Your task to perform on an android device: What's on my calendar tomorrow? Image 0: 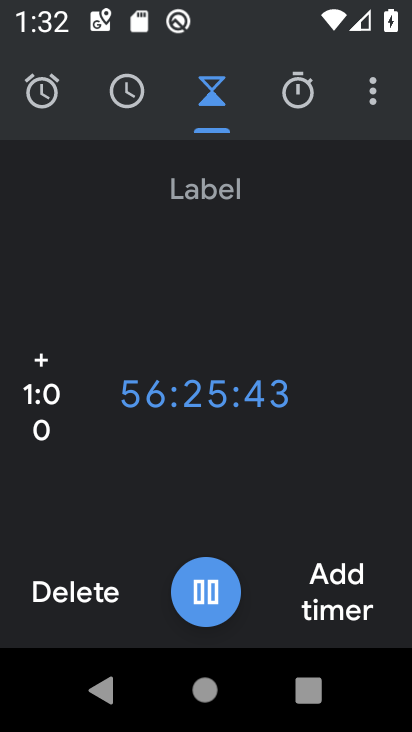
Step 0: press home button
Your task to perform on an android device: What's on my calendar tomorrow? Image 1: 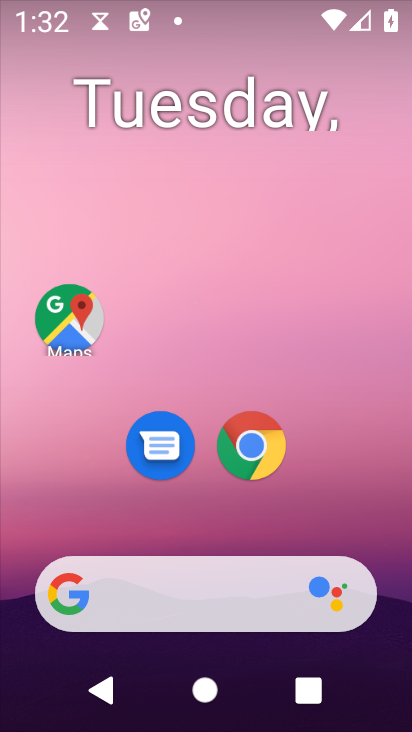
Step 1: drag from (192, 615) to (255, 50)
Your task to perform on an android device: What's on my calendar tomorrow? Image 2: 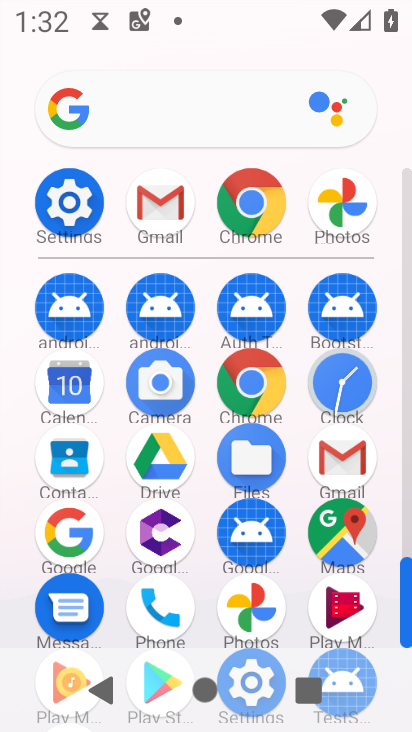
Step 2: click (98, 373)
Your task to perform on an android device: What's on my calendar tomorrow? Image 3: 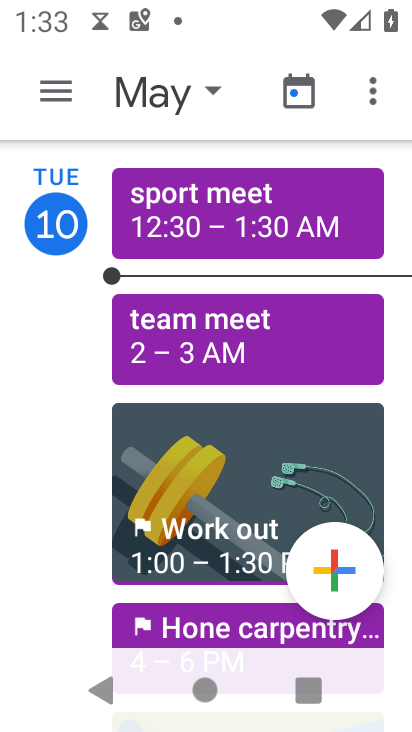
Step 3: click (208, 87)
Your task to perform on an android device: What's on my calendar tomorrow? Image 4: 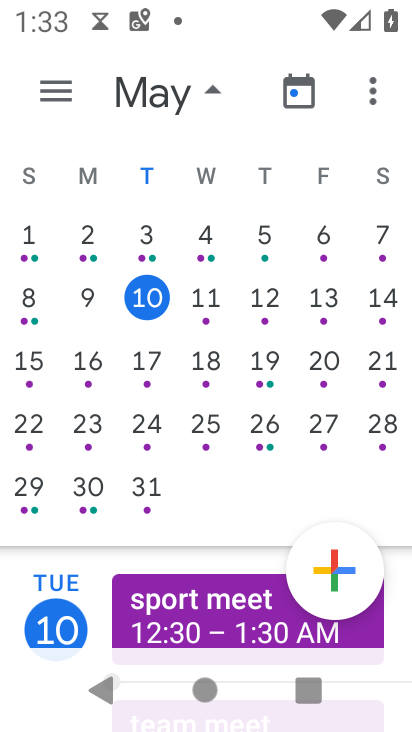
Step 4: click (213, 296)
Your task to perform on an android device: What's on my calendar tomorrow? Image 5: 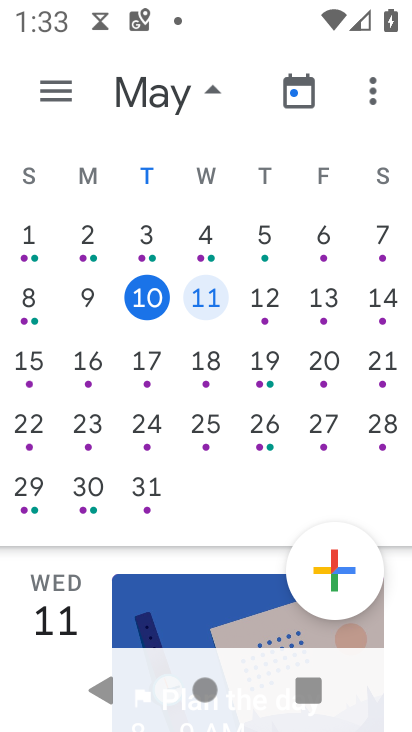
Step 5: task complete